Your task to perform on an android device: Open the calendar and show me this week's events Image 0: 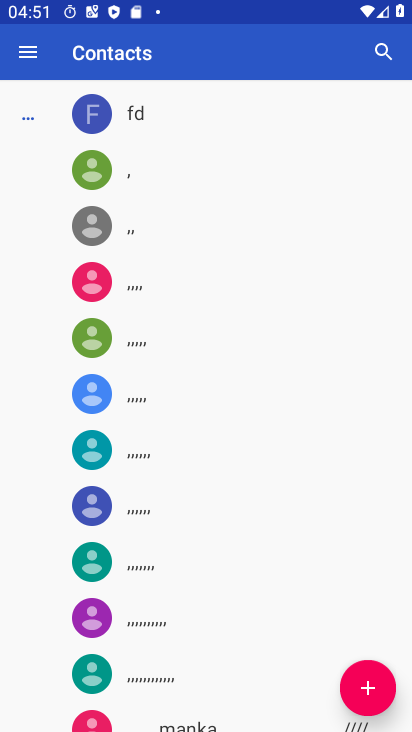
Step 0: press home button
Your task to perform on an android device: Open the calendar and show me this week's events Image 1: 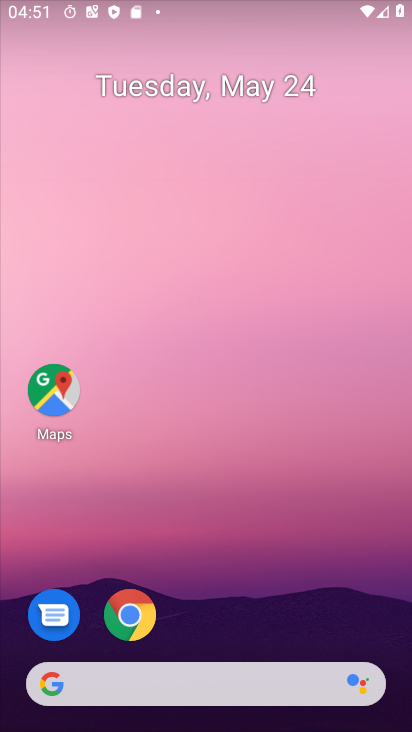
Step 1: drag from (230, 545) to (296, 65)
Your task to perform on an android device: Open the calendar and show me this week's events Image 2: 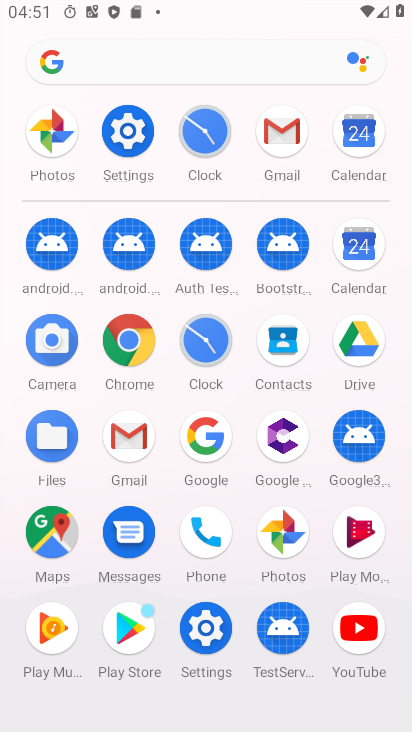
Step 2: click (355, 245)
Your task to perform on an android device: Open the calendar and show me this week's events Image 3: 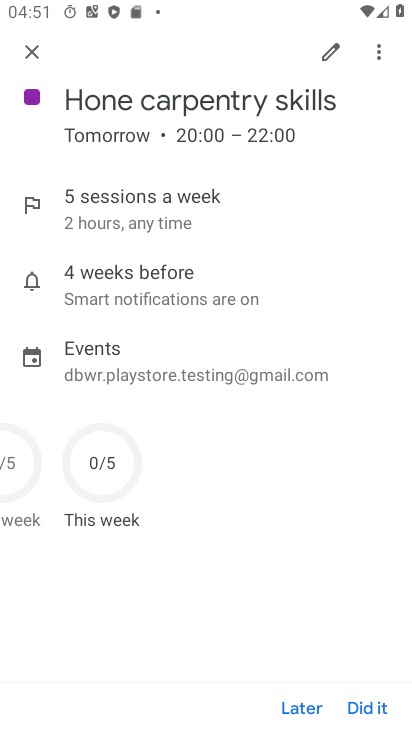
Step 3: click (34, 32)
Your task to perform on an android device: Open the calendar and show me this week's events Image 4: 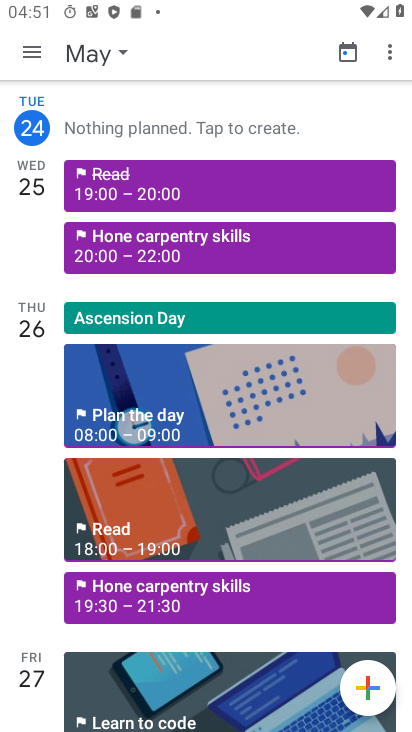
Step 4: click (122, 308)
Your task to perform on an android device: Open the calendar and show me this week's events Image 5: 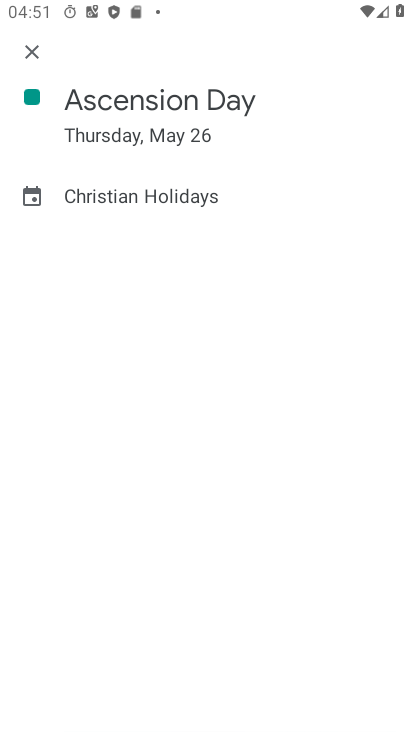
Step 5: task complete